Your task to perform on an android device: manage bookmarks in the chrome app Image 0: 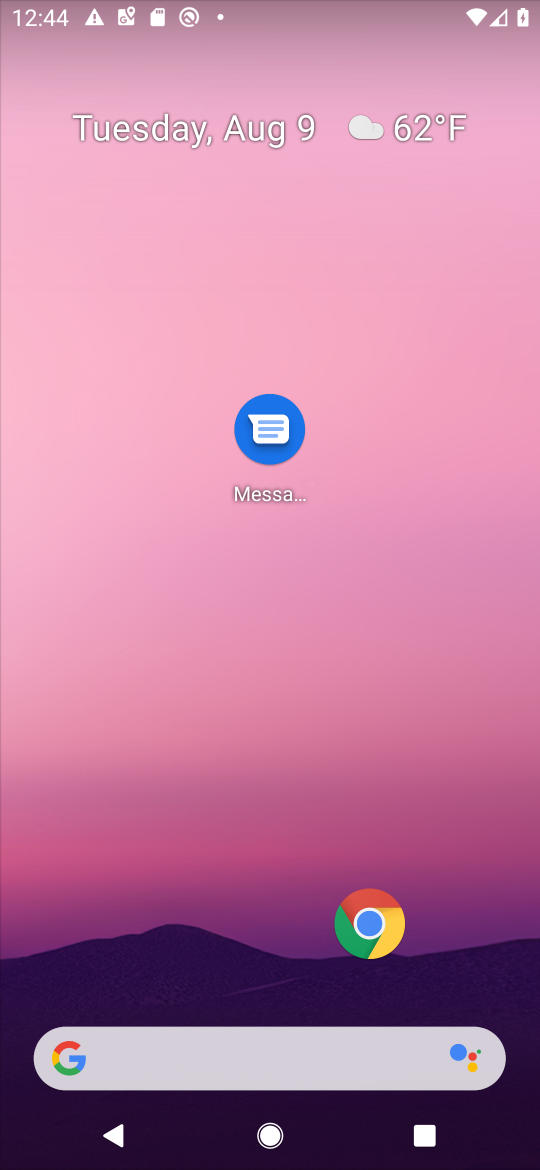
Step 0: click (369, 934)
Your task to perform on an android device: manage bookmarks in the chrome app Image 1: 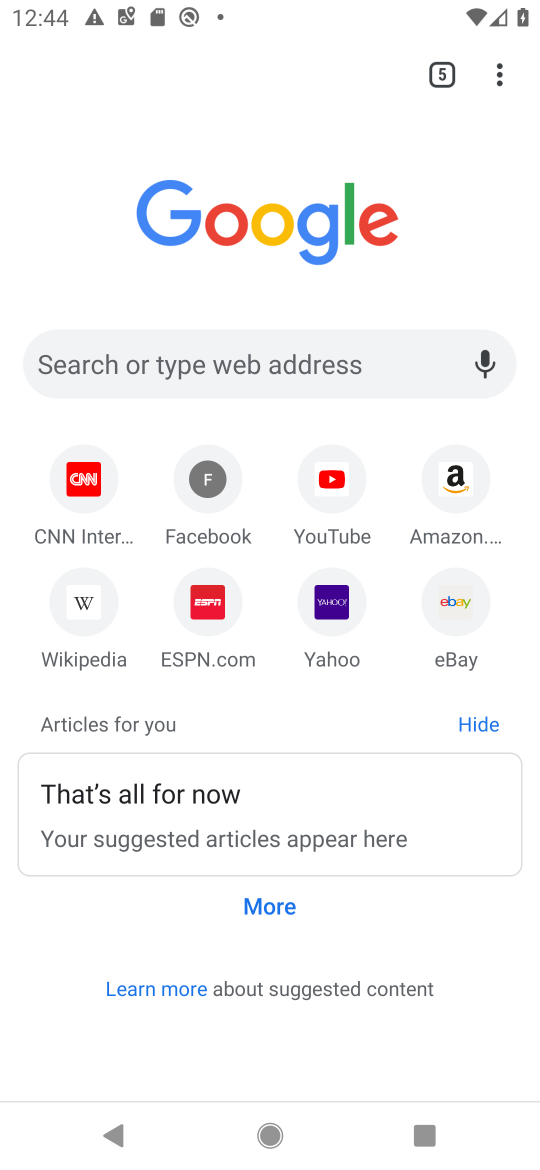
Step 1: click (513, 70)
Your task to perform on an android device: manage bookmarks in the chrome app Image 2: 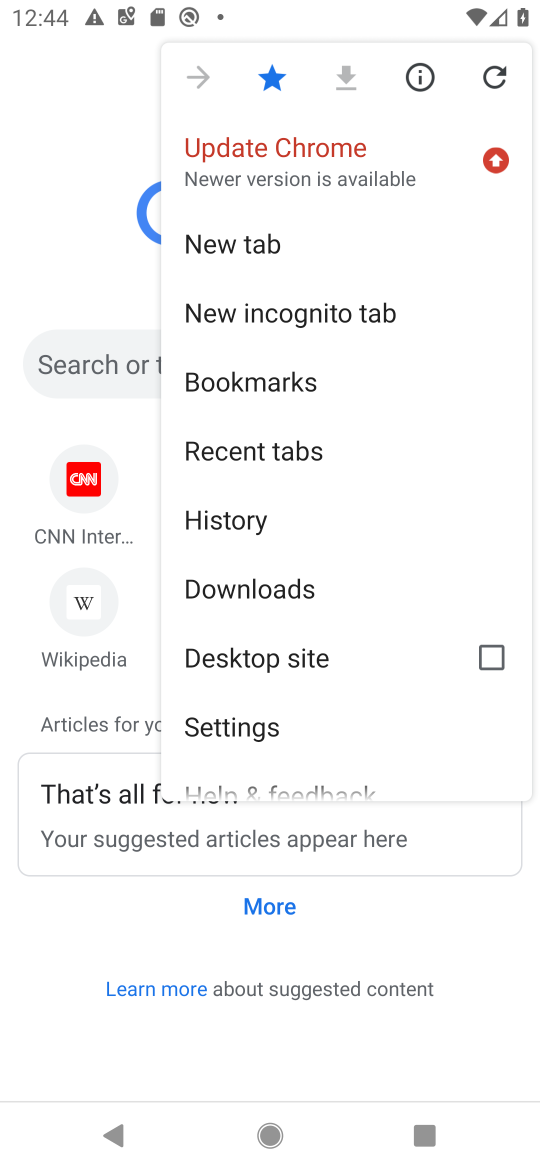
Step 2: click (218, 385)
Your task to perform on an android device: manage bookmarks in the chrome app Image 3: 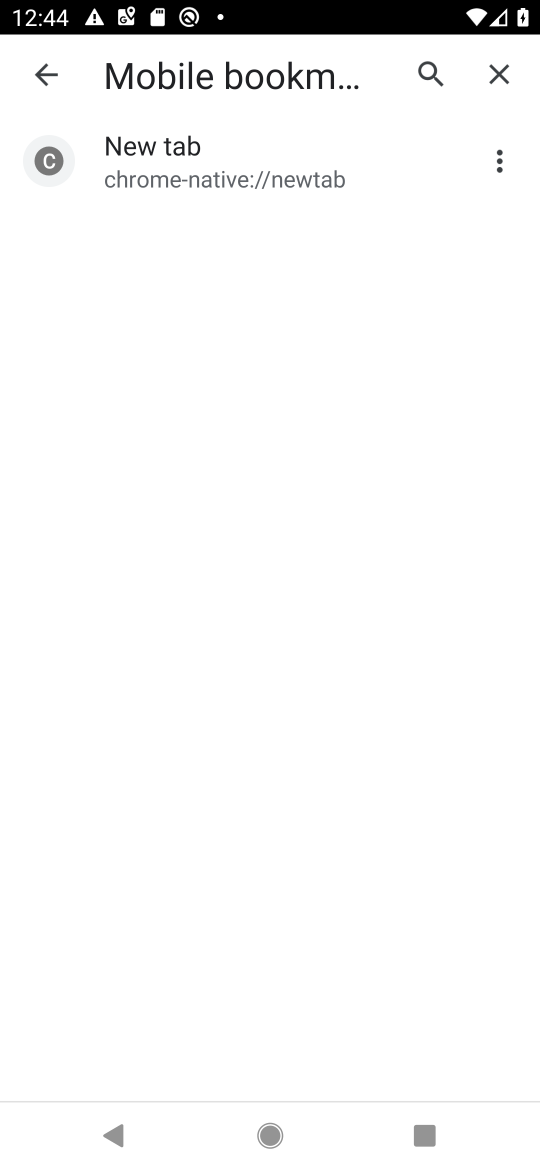
Step 3: task complete